Your task to perform on an android device: check the backup settings in the google photos Image 0: 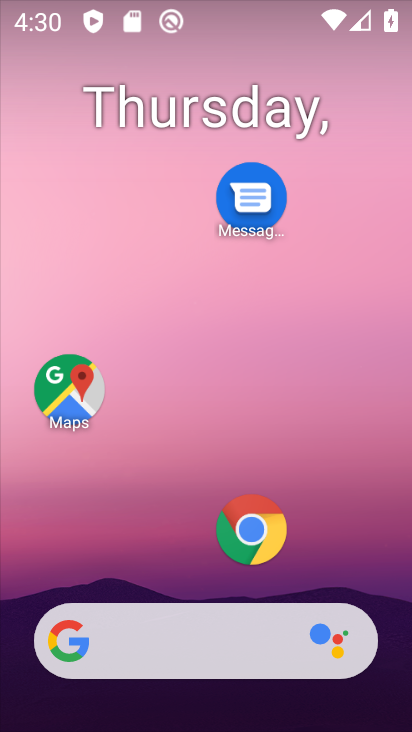
Step 0: drag from (158, 506) to (272, 61)
Your task to perform on an android device: check the backup settings in the google photos Image 1: 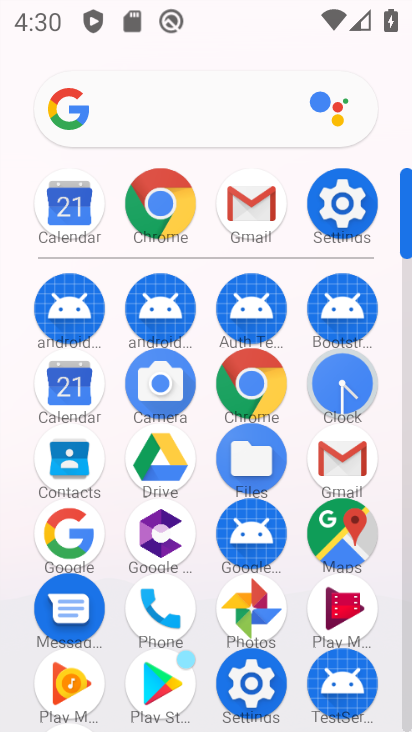
Step 1: click (345, 377)
Your task to perform on an android device: check the backup settings in the google photos Image 2: 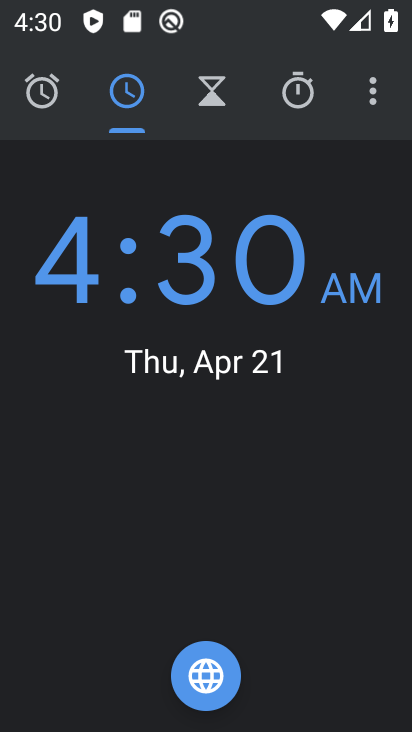
Step 2: press back button
Your task to perform on an android device: check the backup settings in the google photos Image 3: 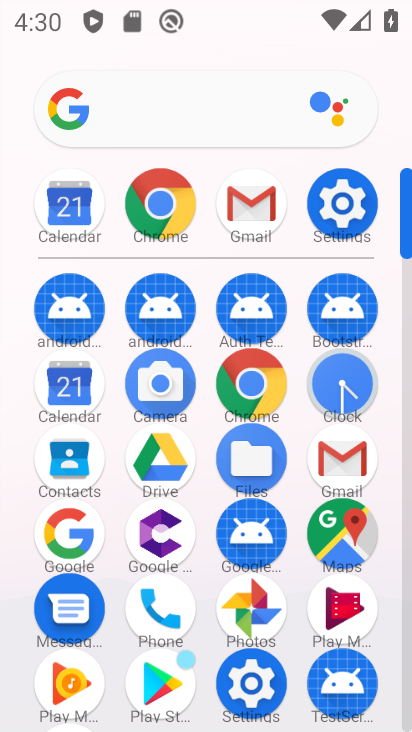
Step 3: click (267, 607)
Your task to perform on an android device: check the backup settings in the google photos Image 4: 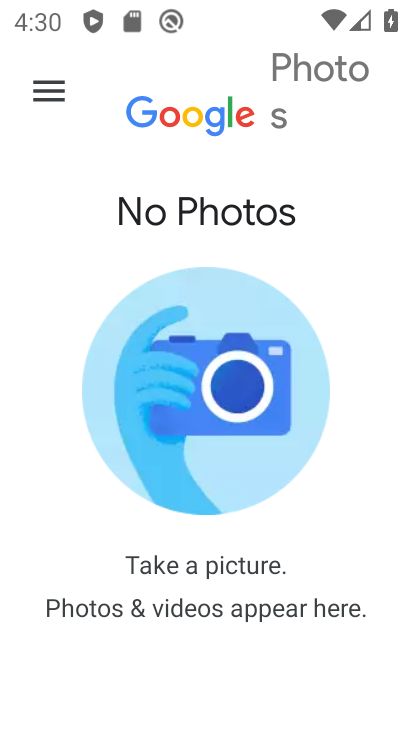
Step 4: click (41, 94)
Your task to perform on an android device: check the backup settings in the google photos Image 5: 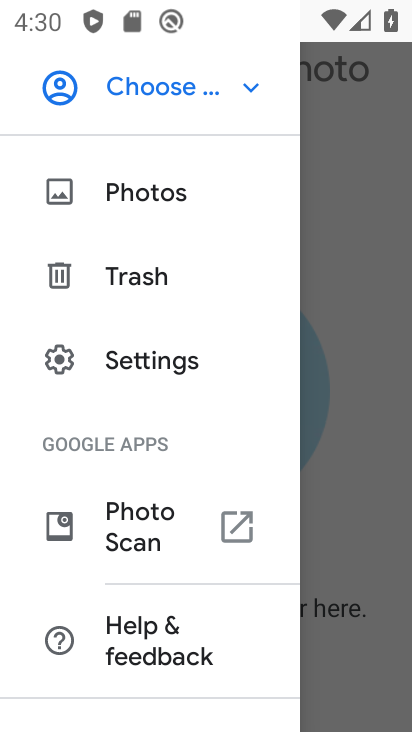
Step 5: click (133, 349)
Your task to perform on an android device: check the backup settings in the google photos Image 6: 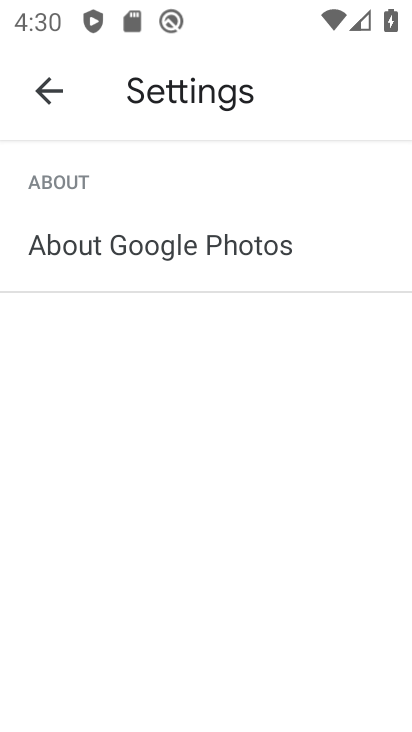
Step 6: click (46, 91)
Your task to perform on an android device: check the backup settings in the google photos Image 7: 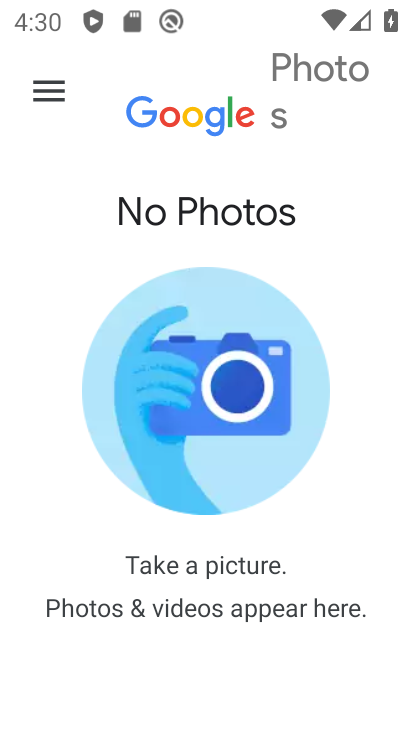
Step 7: click (48, 92)
Your task to perform on an android device: check the backup settings in the google photos Image 8: 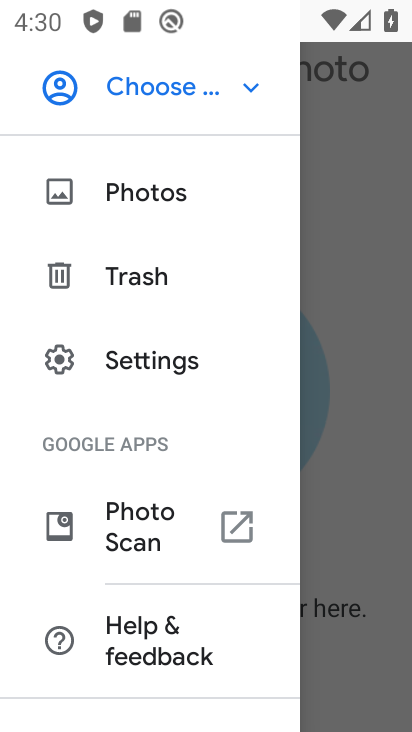
Step 8: click (230, 95)
Your task to perform on an android device: check the backup settings in the google photos Image 9: 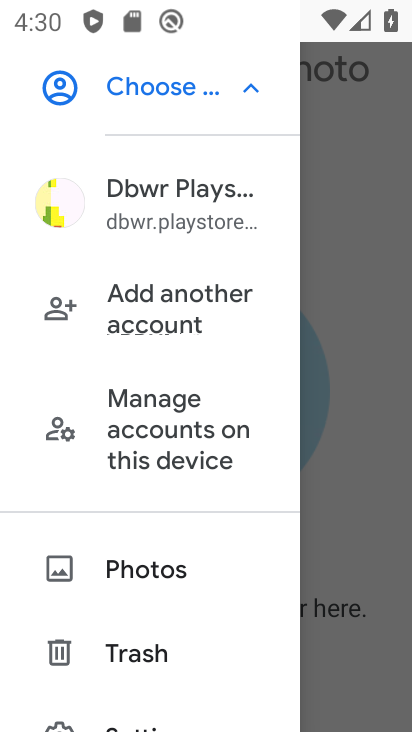
Step 9: drag from (132, 699) to (219, 235)
Your task to perform on an android device: check the backup settings in the google photos Image 10: 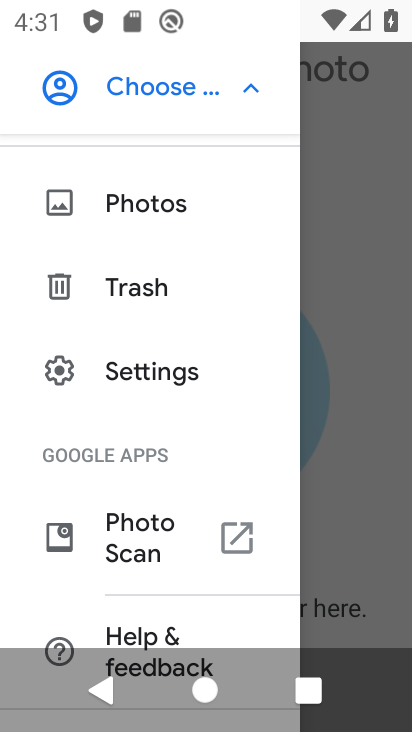
Step 10: click (186, 379)
Your task to perform on an android device: check the backup settings in the google photos Image 11: 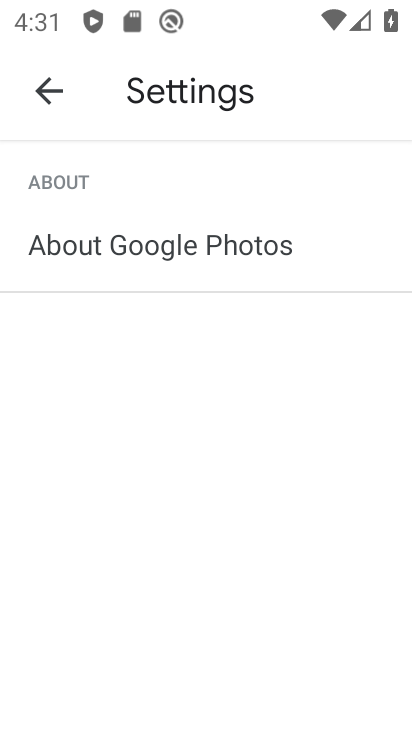
Step 11: click (154, 249)
Your task to perform on an android device: check the backup settings in the google photos Image 12: 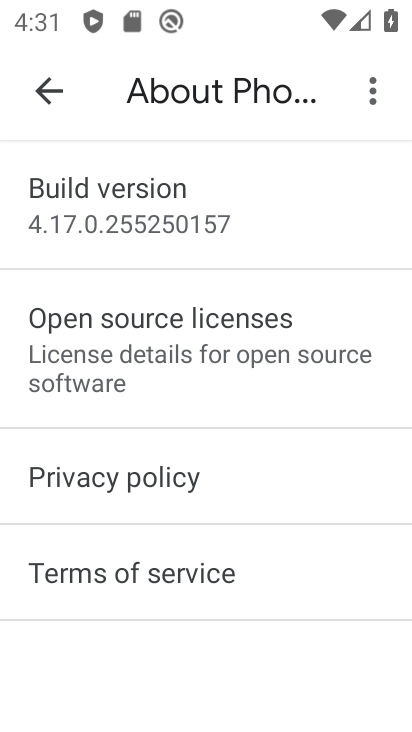
Step 12: click (44, 73)
Your task to perform on an android device: check the backup settings in the google photos Image 13: 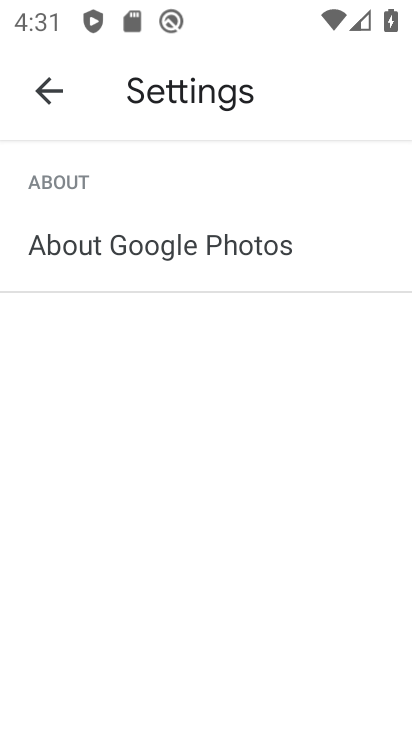
Step 13: click (44, 73)
Your task to perform on an android device: check the backup settings in the google photos Image 14: 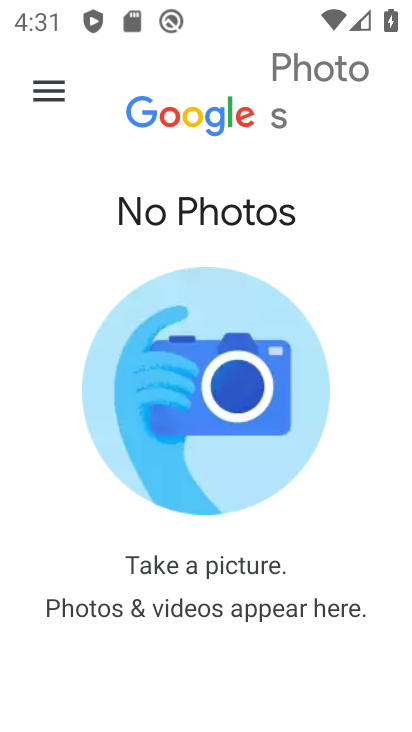
Step 14: click (43, 80)
Your task to perform on an android device: check the backup settings in the google photos Image 15: 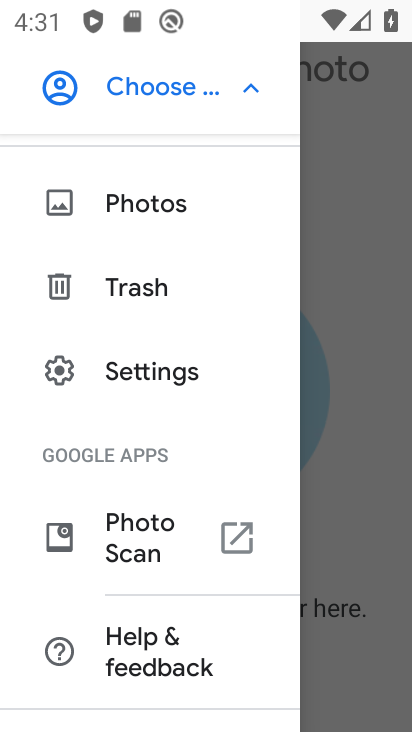
Step 15: click (163, 85)
Your task to perform on an android device: check the backup settings in the google photos Image 16: 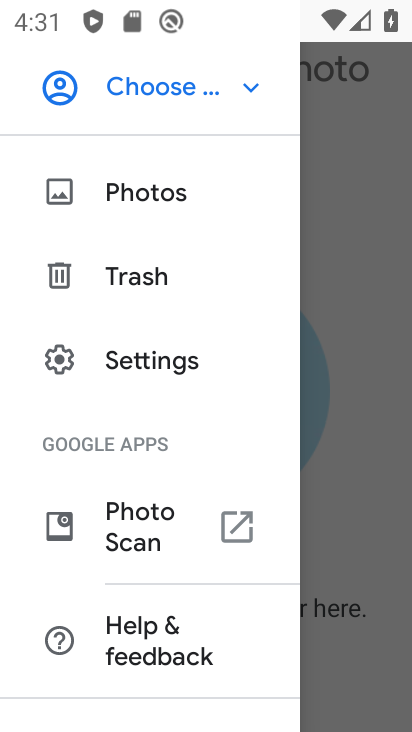
Step 16: task complete